Your task to perform on an android device: View the shopping cart on amazon. Search for rayovac triple a on amazon, select the first entry, add it to the cart, then select checkout. Image 0: 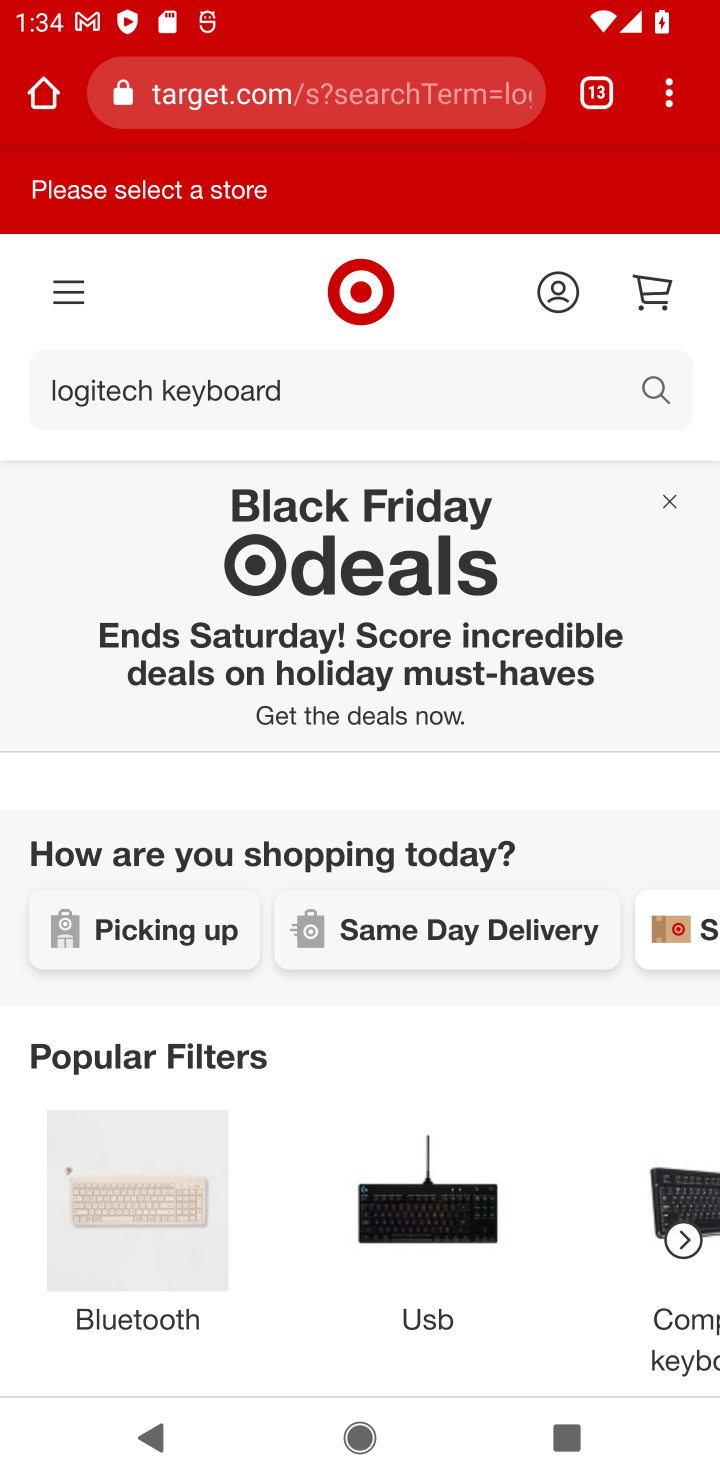
Step 0: press home button
Your task to perform on an android device: View the shopping cart on amazon. Search for rayovac triple a on amazon, select the first entry, add it to the cart, then select checkout. Image 1: 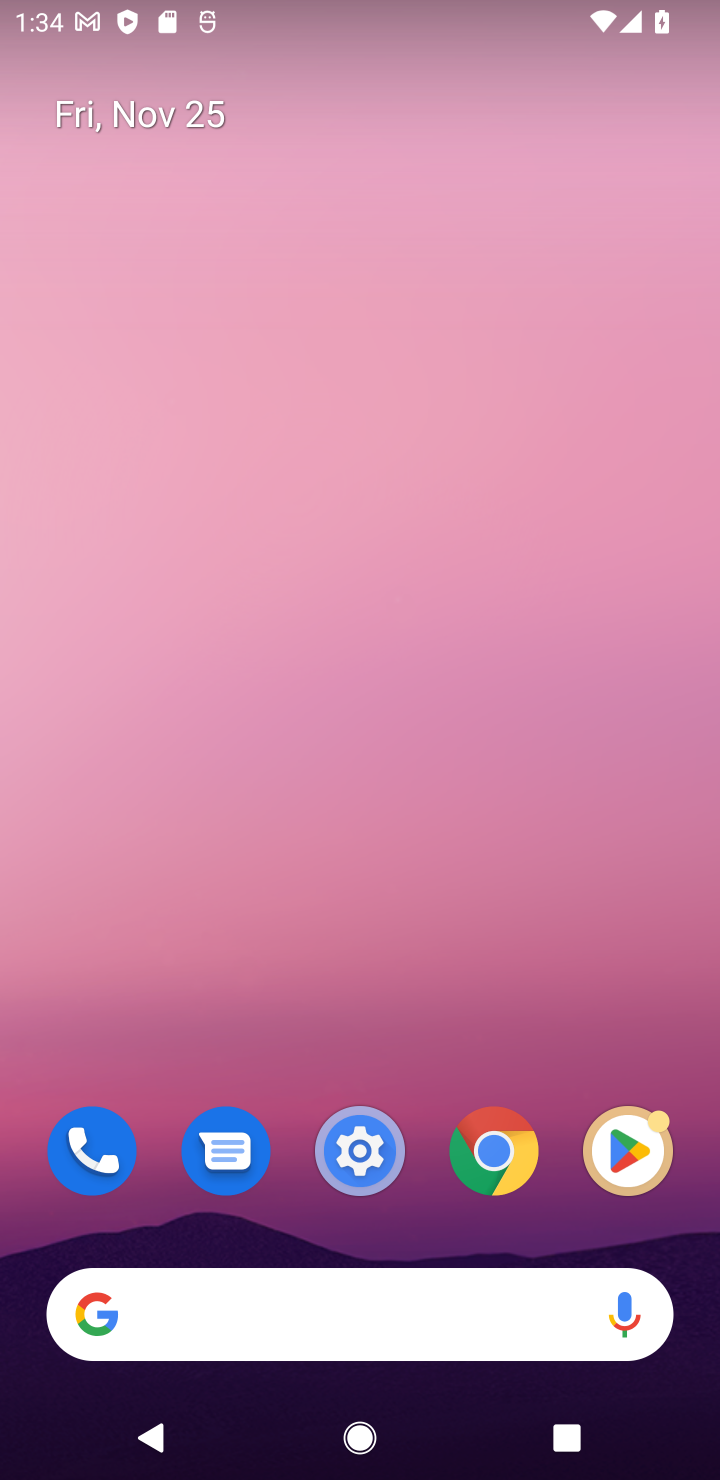
Step 1: click (432, 1337)
Your task to perform on an android device: View the shopping cart on amazon. Search for rayovac triple a on amazon, select the first entry, add it to the cart, then select checkout. Image 2: 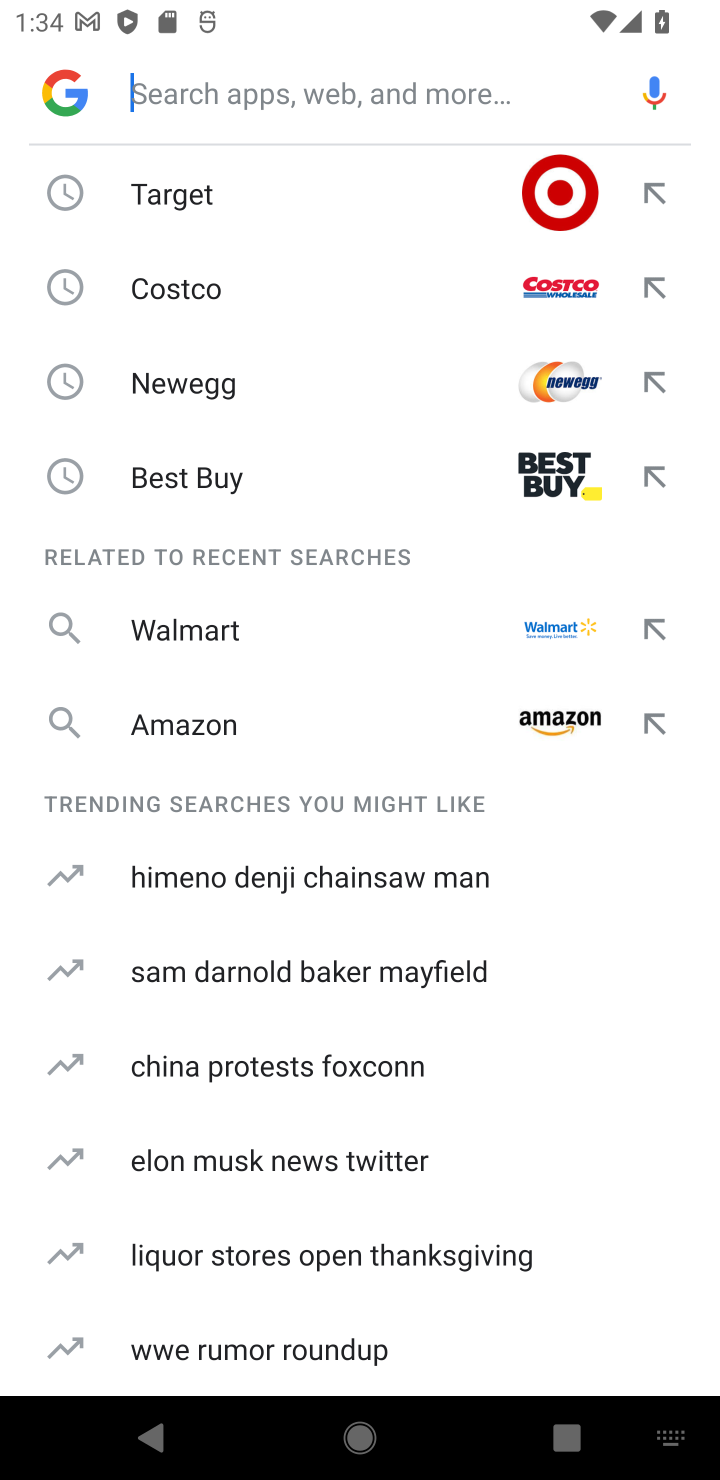
Step 2: click (504, 710)
Your task to perform on an android device: View the shopping cart on amazon. Search for rayovac triple a on amazon, select the first entry, add it to the cart, then select checkout. Image 3: 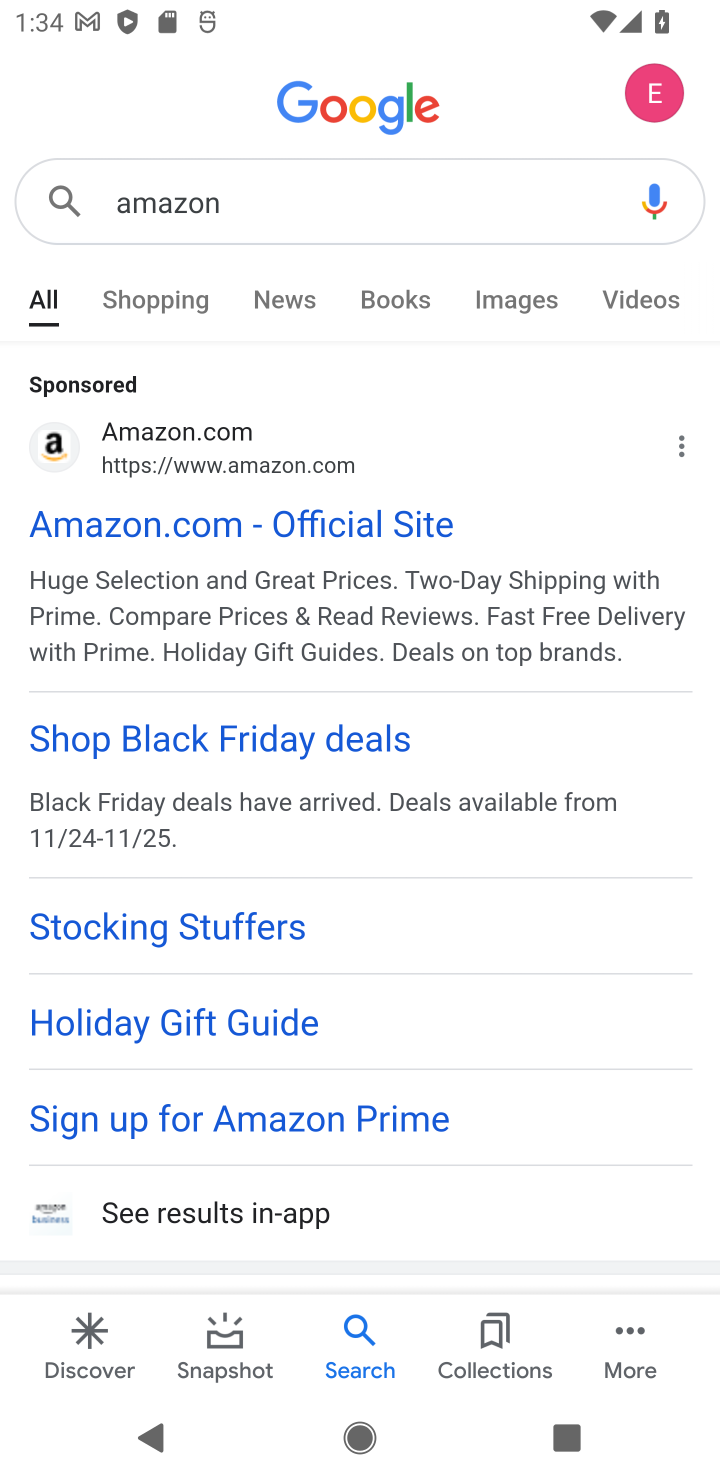
Step 3: click (338, 552)
Your task to perform on an android device: View the shopping cart on amazon. Search for rayovac triple a on amazon, select the first entry, add it to the cart, then select checkout. Image 4: 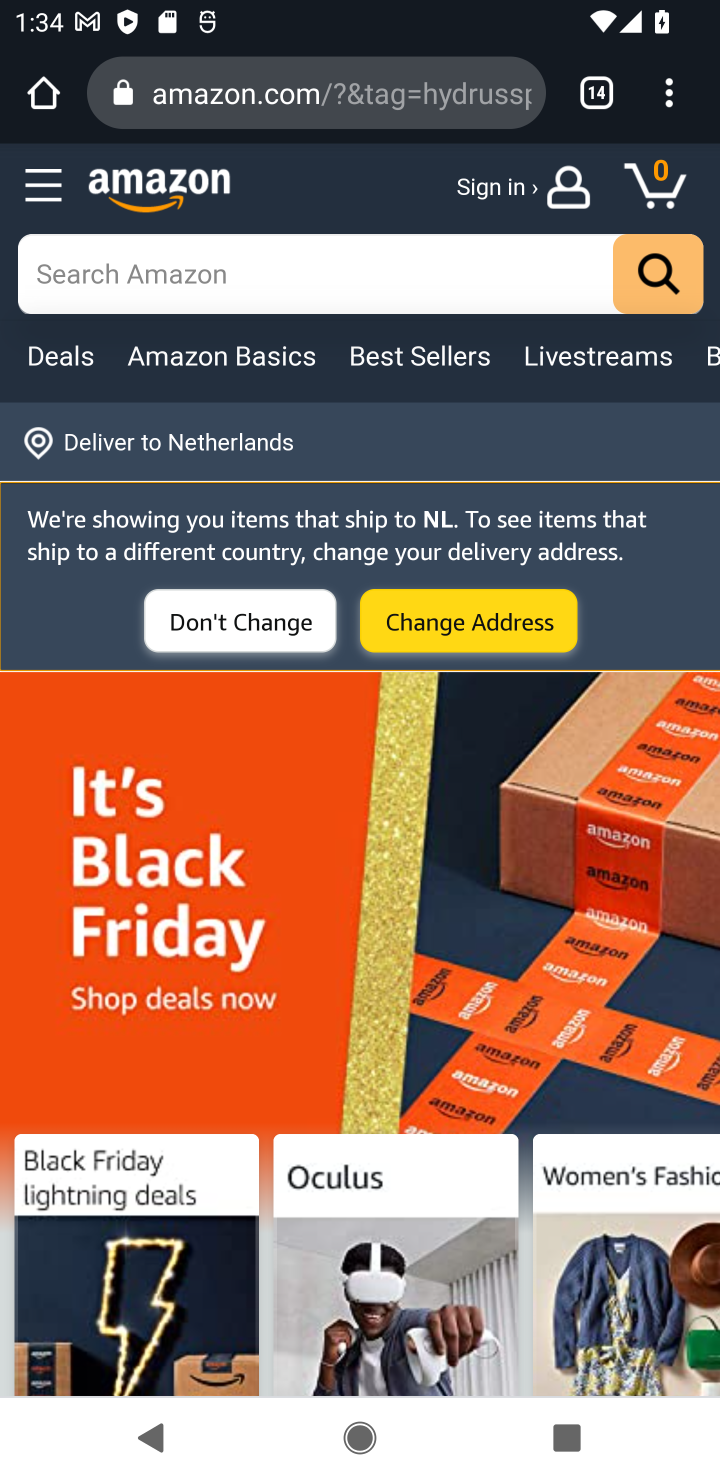
Step 4: click (346, 269)
Your task to perform on an android device: View the shopping cart on amazon. Search for rayovac triple a on amazon, select the first entry, add it to the cart, then select checkout. Image 5: 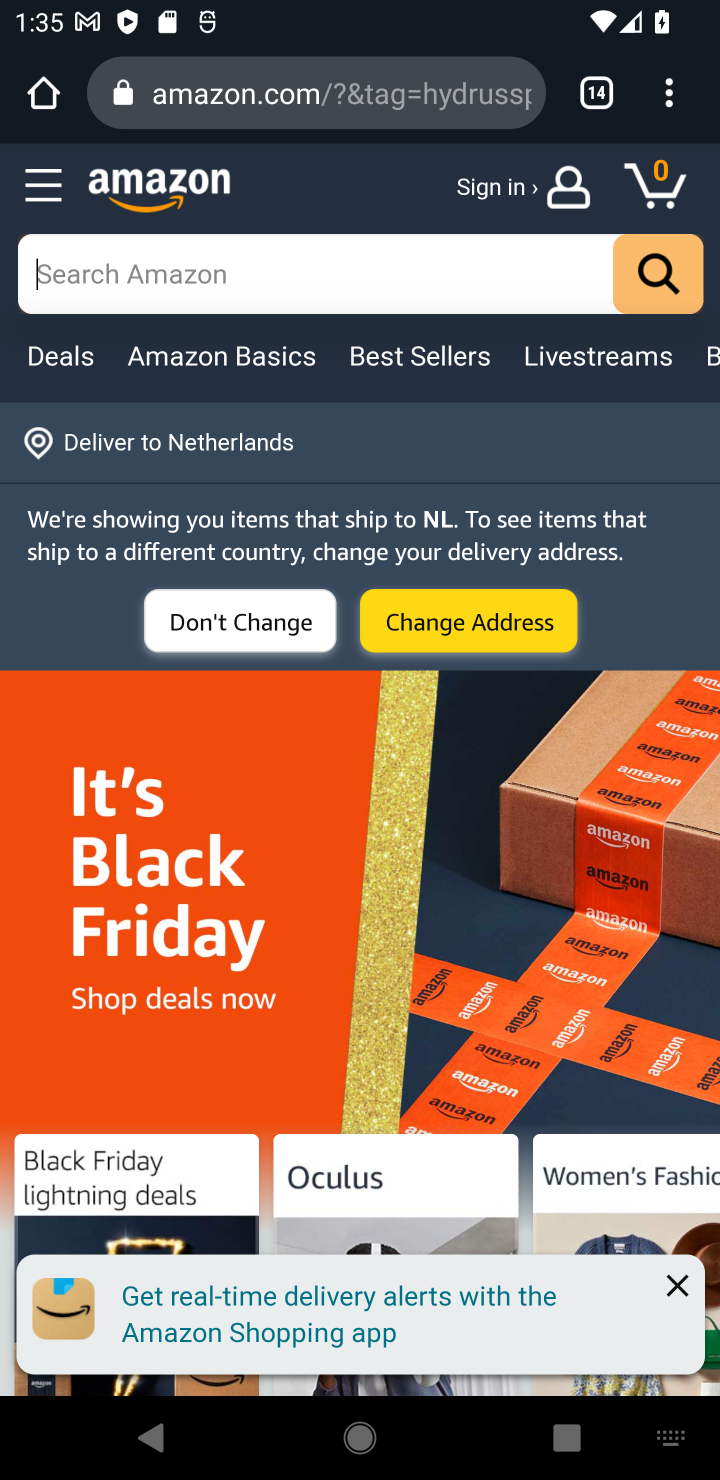
Step 5: task complete